Your task to perform on an android device: What's on my calendar tomorrow? Image 0: 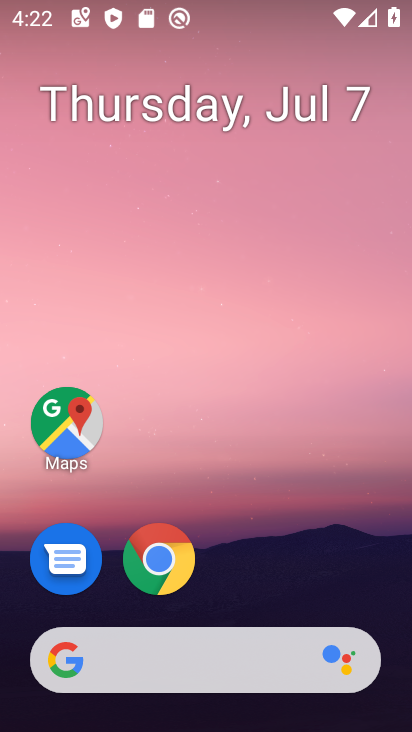
Step 0: drag from (234, 579) to (307, 1)
Your task to perform on an android device: What's on my calendar tomorrow? Image 1: 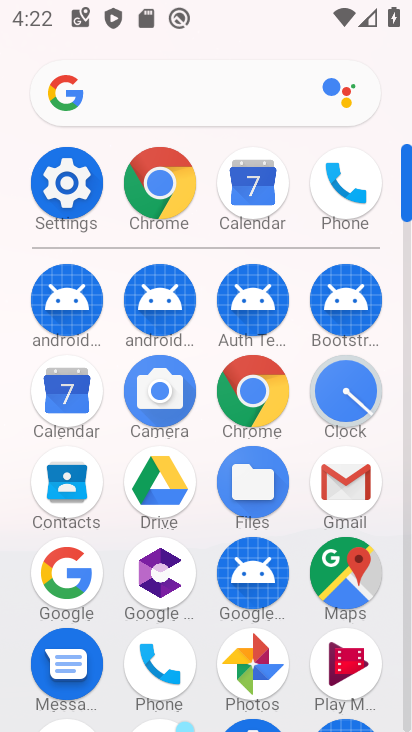
Step 1: click (72, 415)
Your task to perform on an android device: What's on my calendar tomorrow? Image 2: 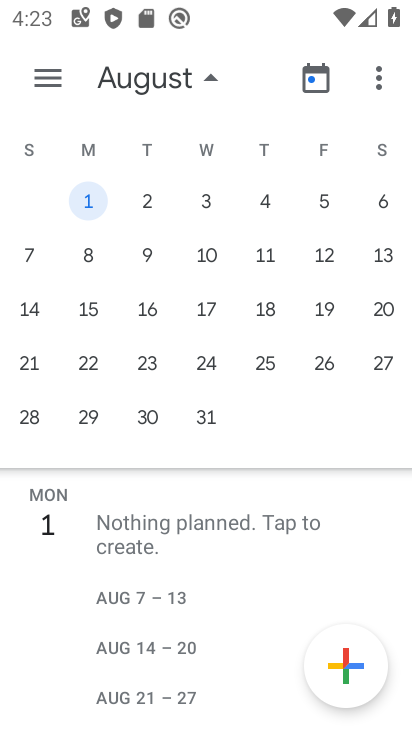
Step 2: drag from (54, 313) to (371, 313)
Your task to perform on an android device: What's on my calendar tomorrow? Image 3: 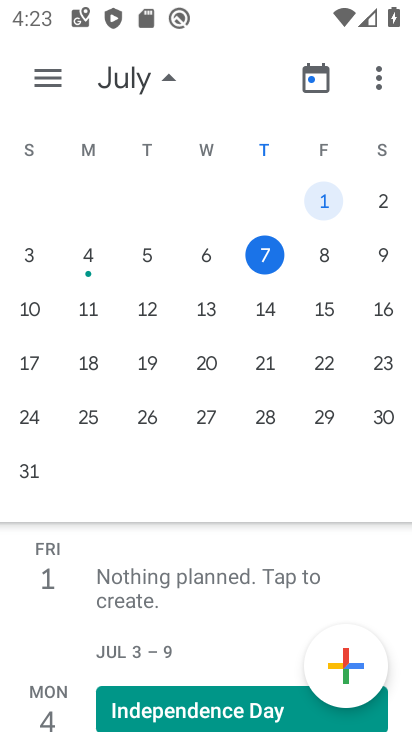
Step 3: click (316, 254)
Your task to perform on an android device: What's on my calendar tomorrow? Image 4: 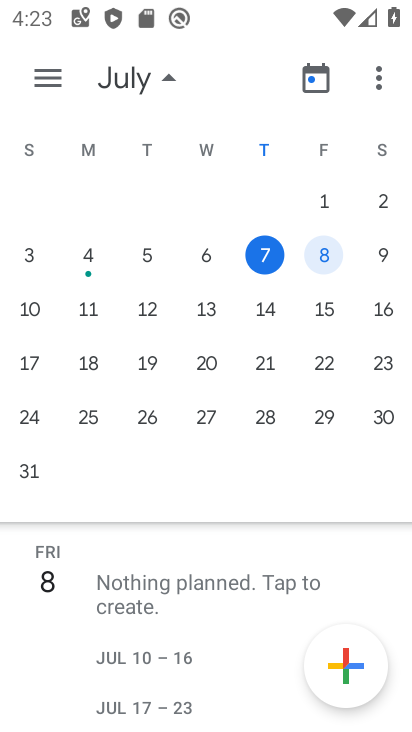
Step 4: task complete